Your task to perform on an android device: Open wifi settings Image 0: 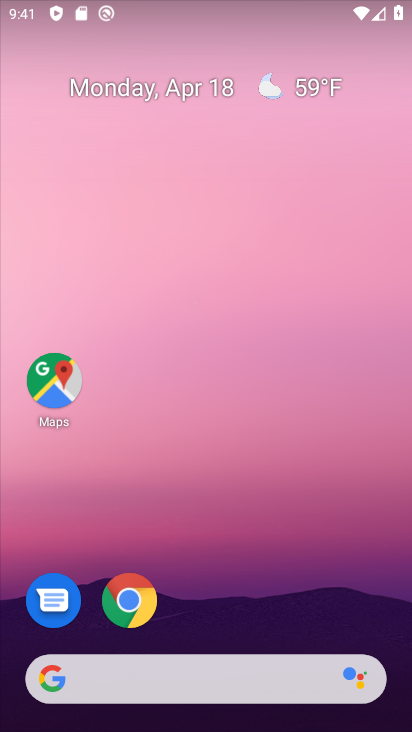
Step 0: drag from (267, 606) to (259, 28)
Your task to perform on an android device: Open wifi settings Image 1: 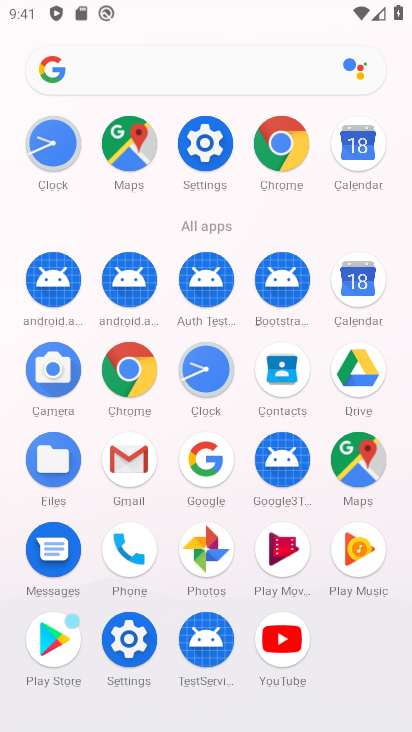
Step 1: click (210, 140)
Your task to perform on an android device: Open wifi settings Image 2: 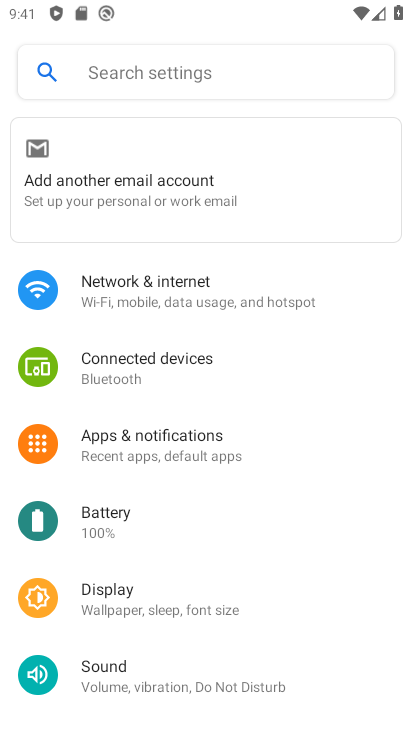
Step 2: click (138, 289)
Your task to perform on an android device: Open wifi settings Image 3: 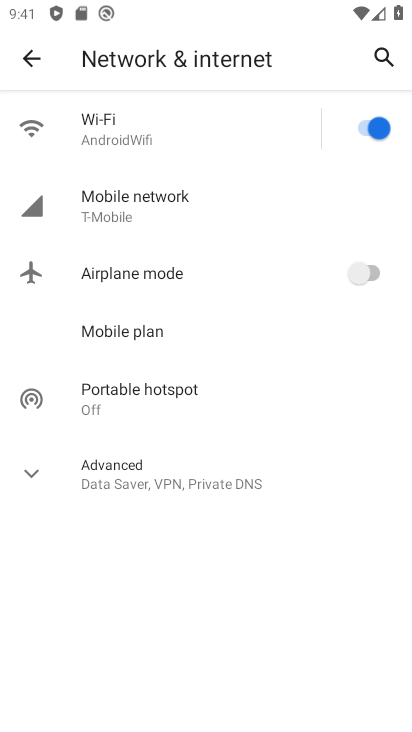
Step 3: click (97, 123)
Your task to perform on an android device: Open wifi settings Image 4: 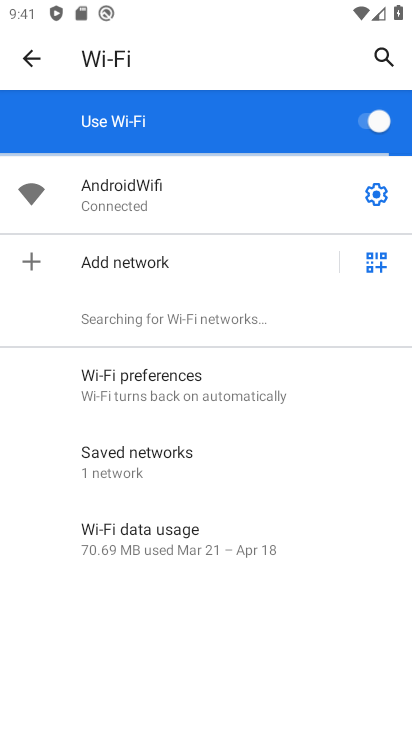
Step 4: task complete